Your task to perform on an android device: What's the latest tech news? Image 0: 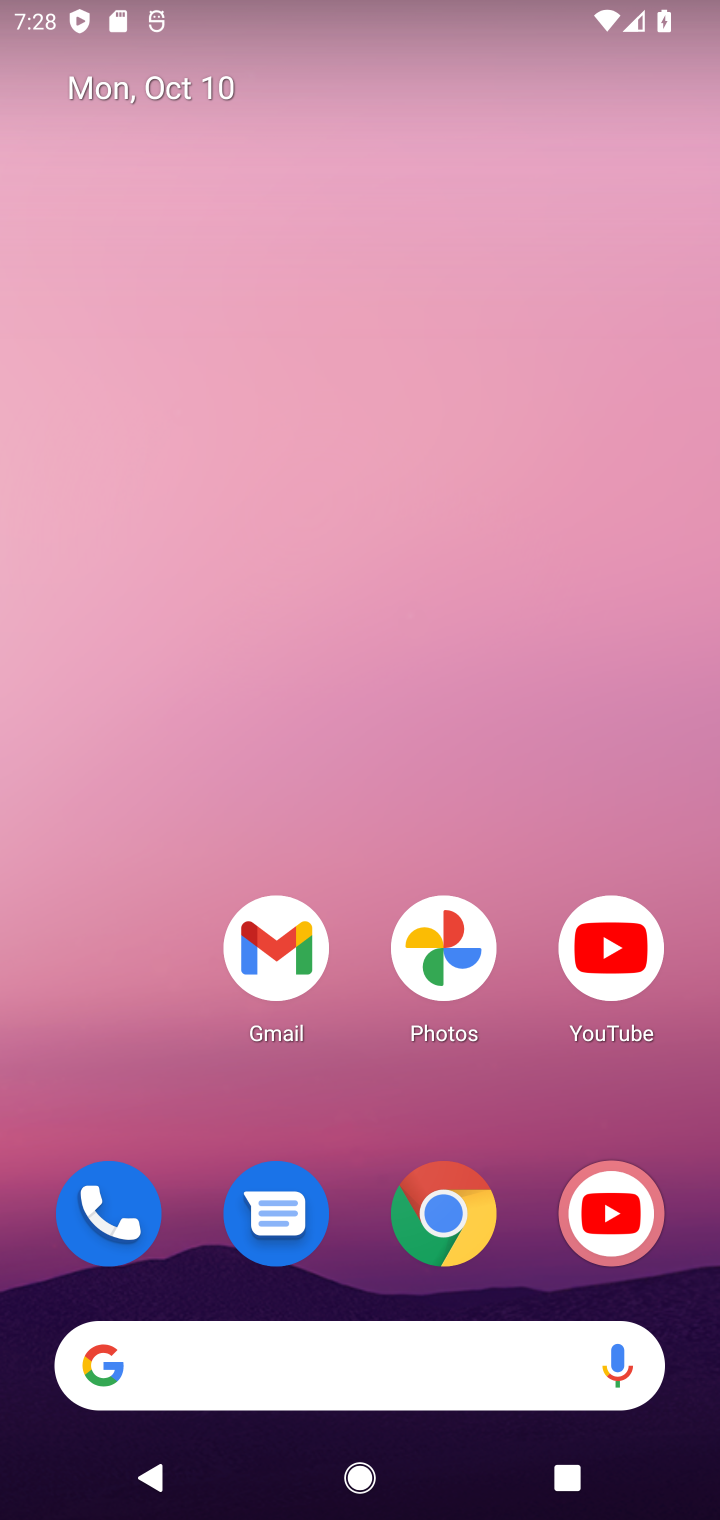
Step 0: click (422, 1383)
Your task to perform on an android device: What's the latest tech news? Image 1: 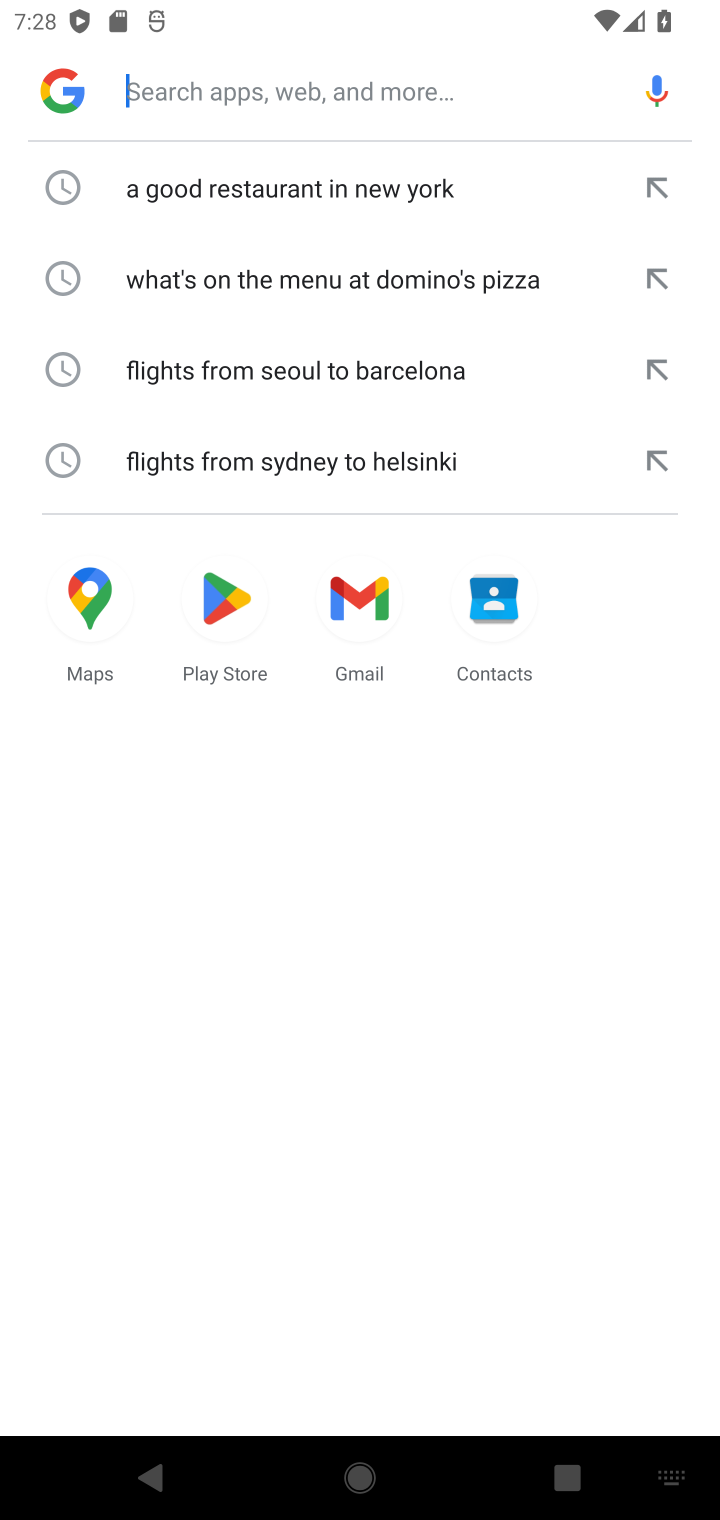
Step 1: click (294, 72)
Your task to perform on an android device: What's the latest tech news? Image 2: 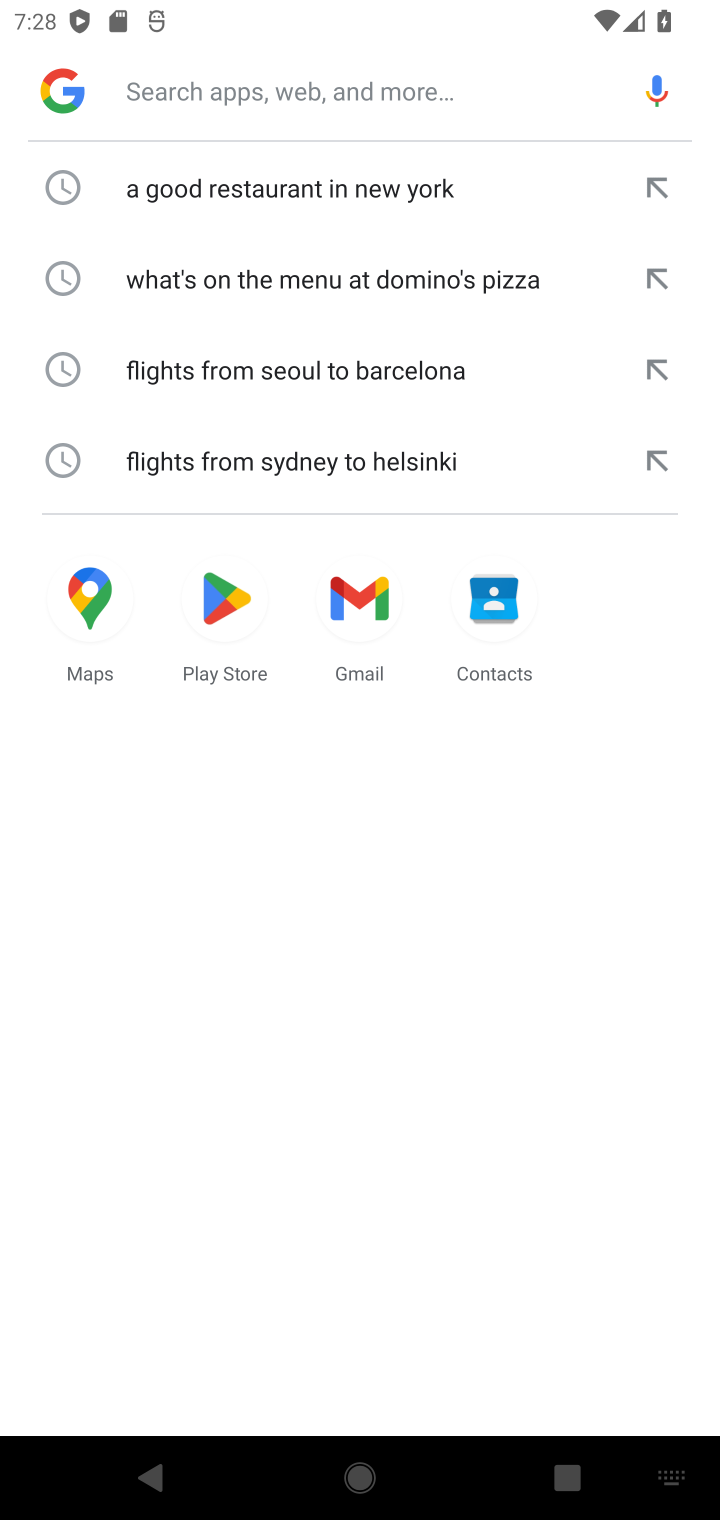
Step 2: type "What's the latest tech news?"
Your task to perform on an android device: What's the latest tech news? Image 3: 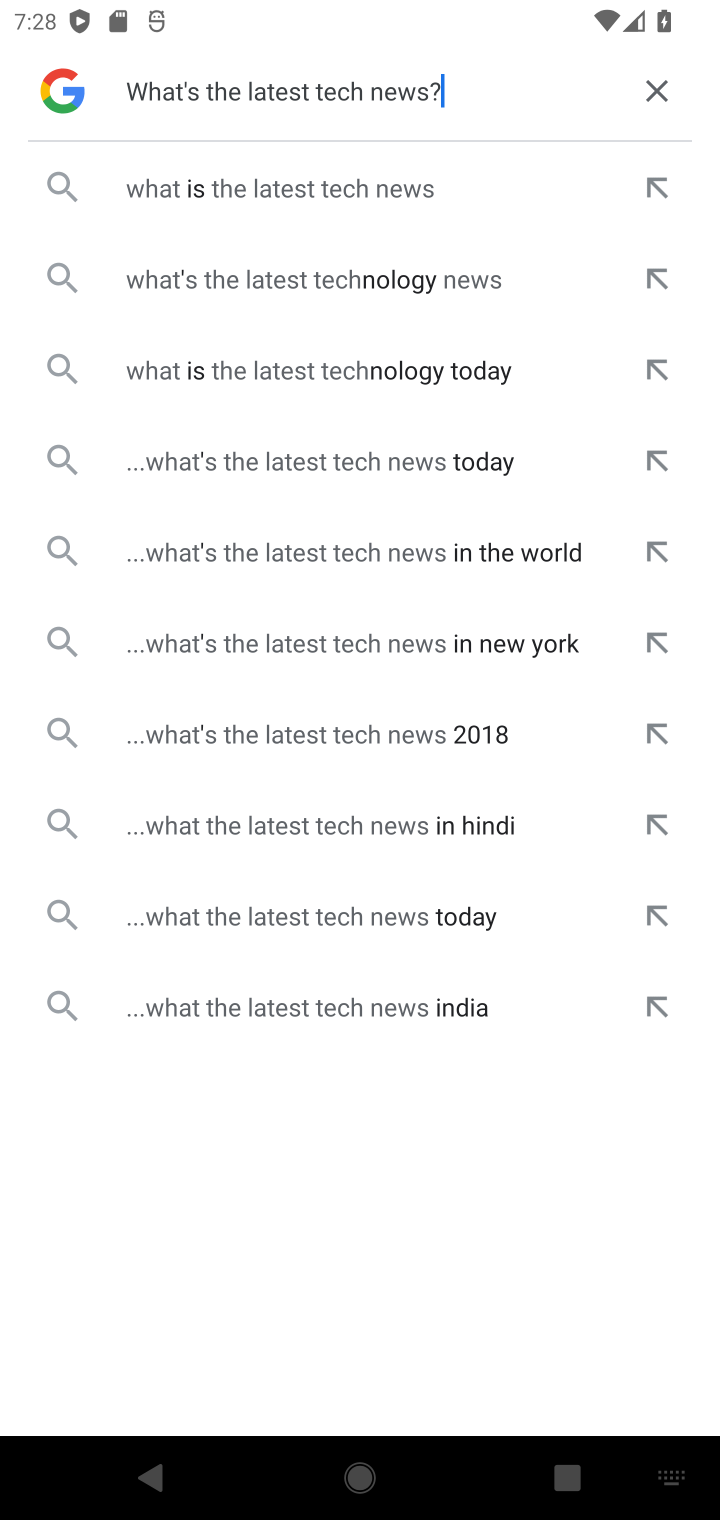
Step 3: click (347, 188)
Your task to perform on an android device: What's the latest tech news? Image 4: 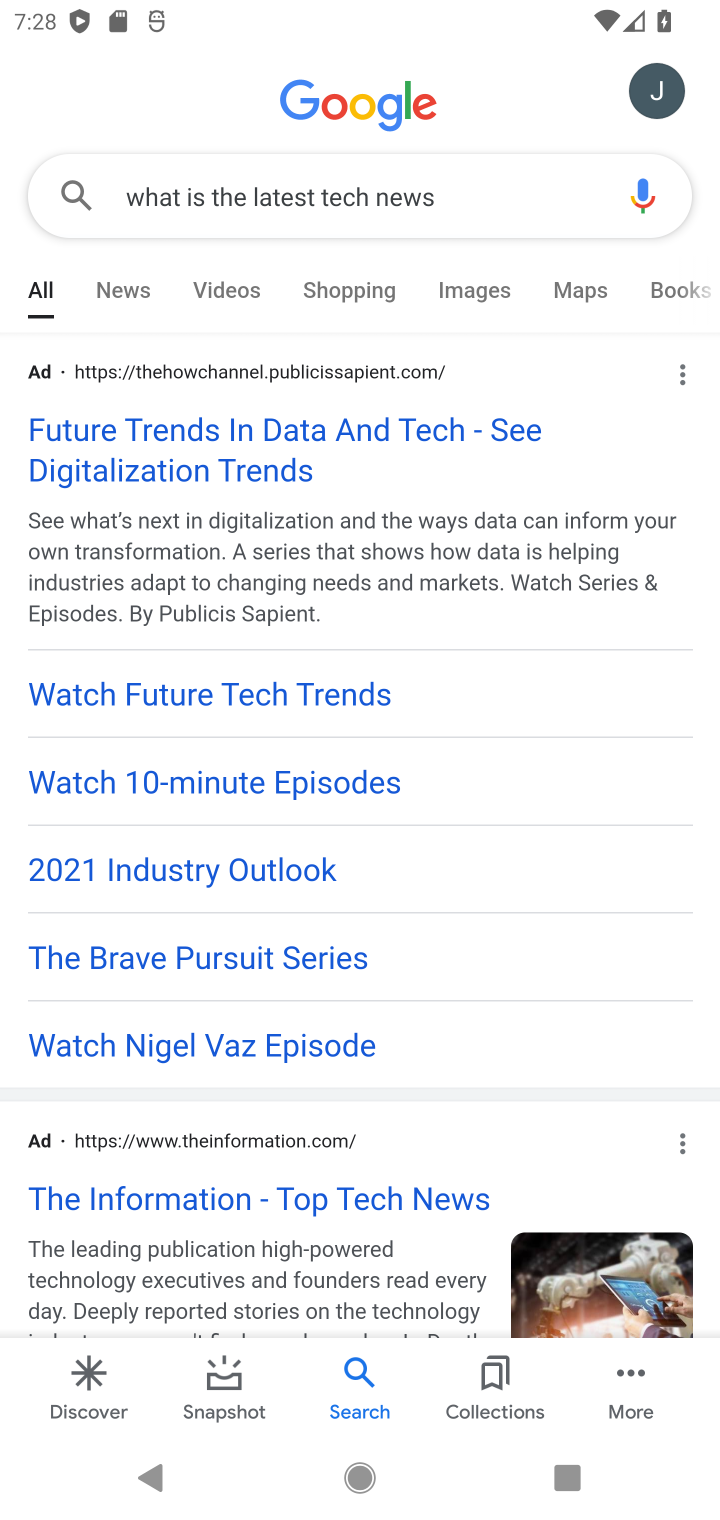
Step 4: drag from (304, 1232) to (523, 315)
Your task to perform on an android device: What's the latest tech news? Image 5: 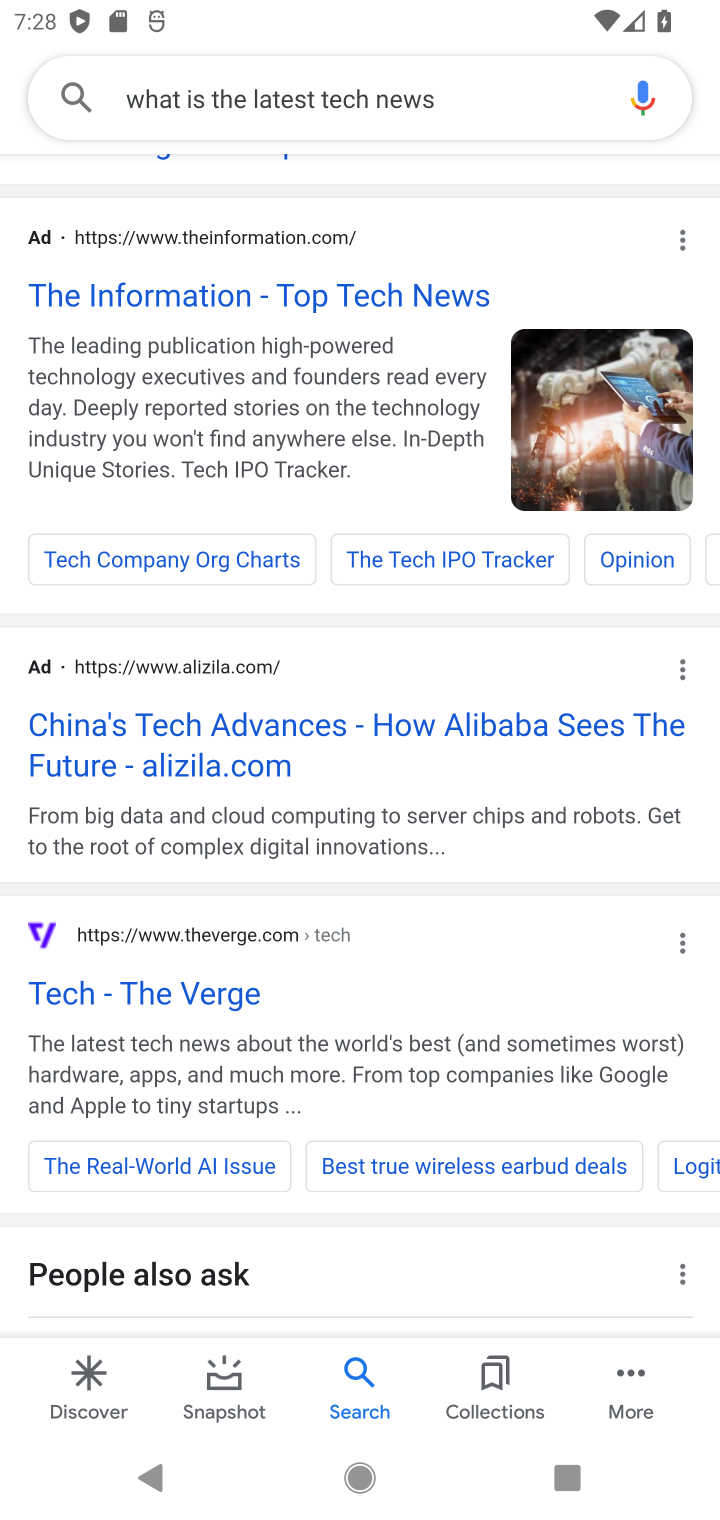
Step 5: drag from (381, 1088) to (598, 92)
Your task to perform on an android device: What's the latest tech news? Image 6: 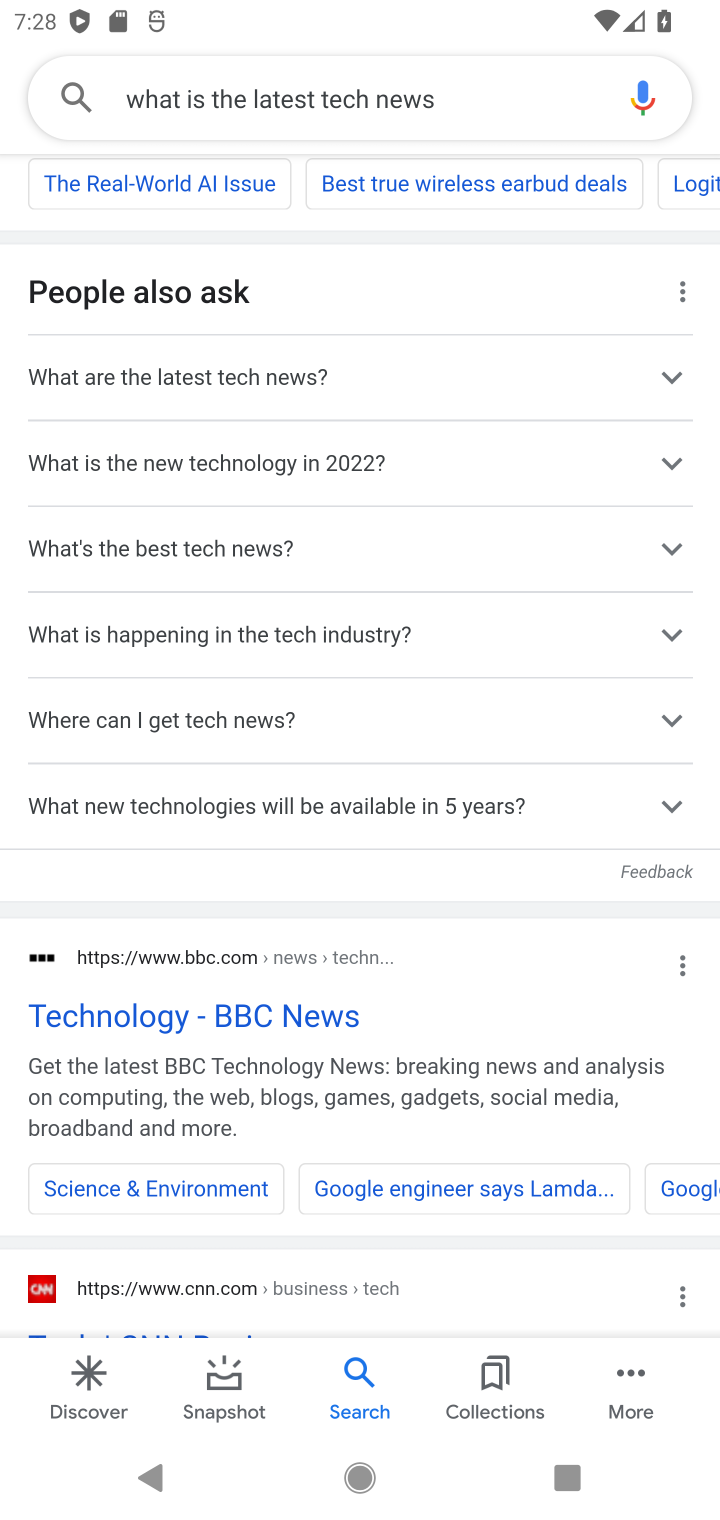
Step 6: drag from (500, 430) to (306, 1493)
Your task to perform on an android device: What's the latest tech news? Image 7: 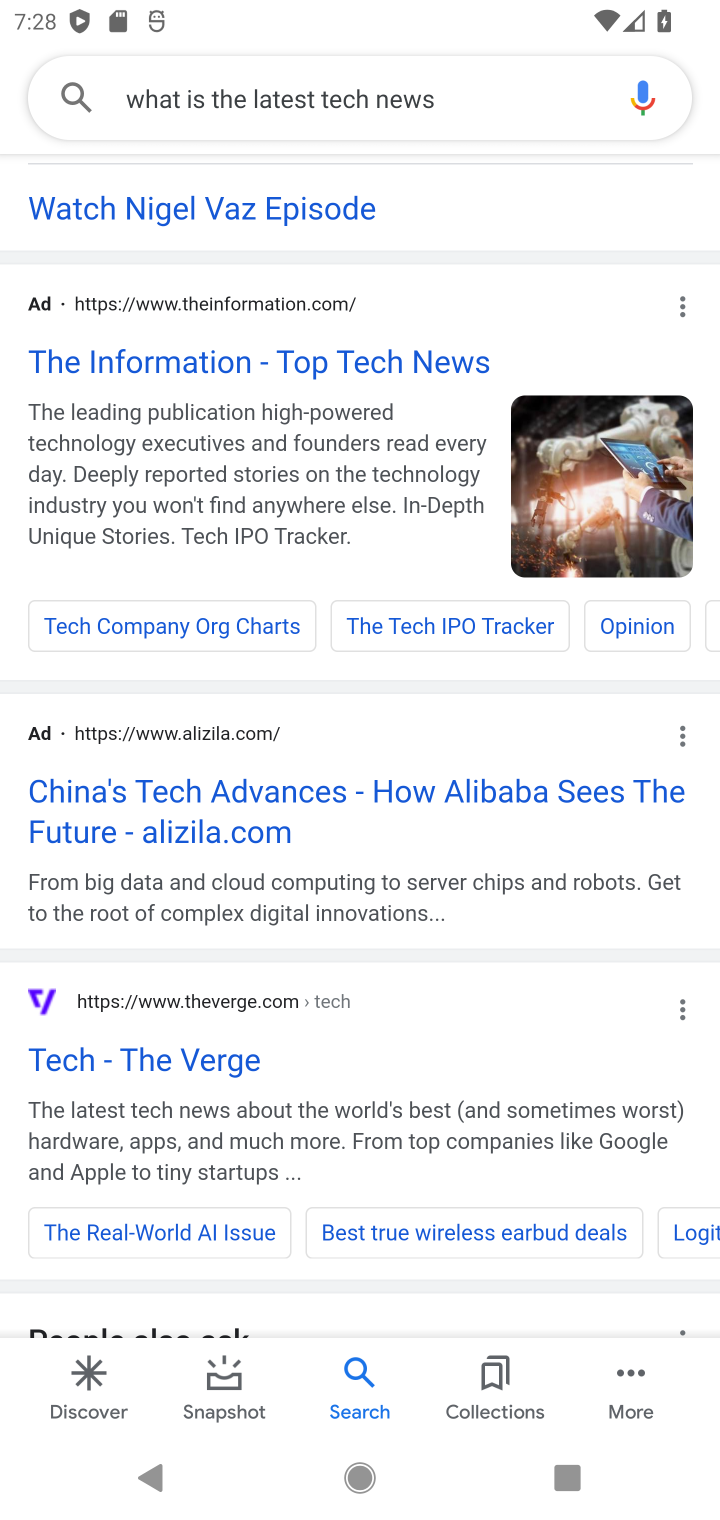
Step 7: drag from (408, 516) to (219, 1515)
Your task to perform on an android device: What's the latest tech news? Image 8: 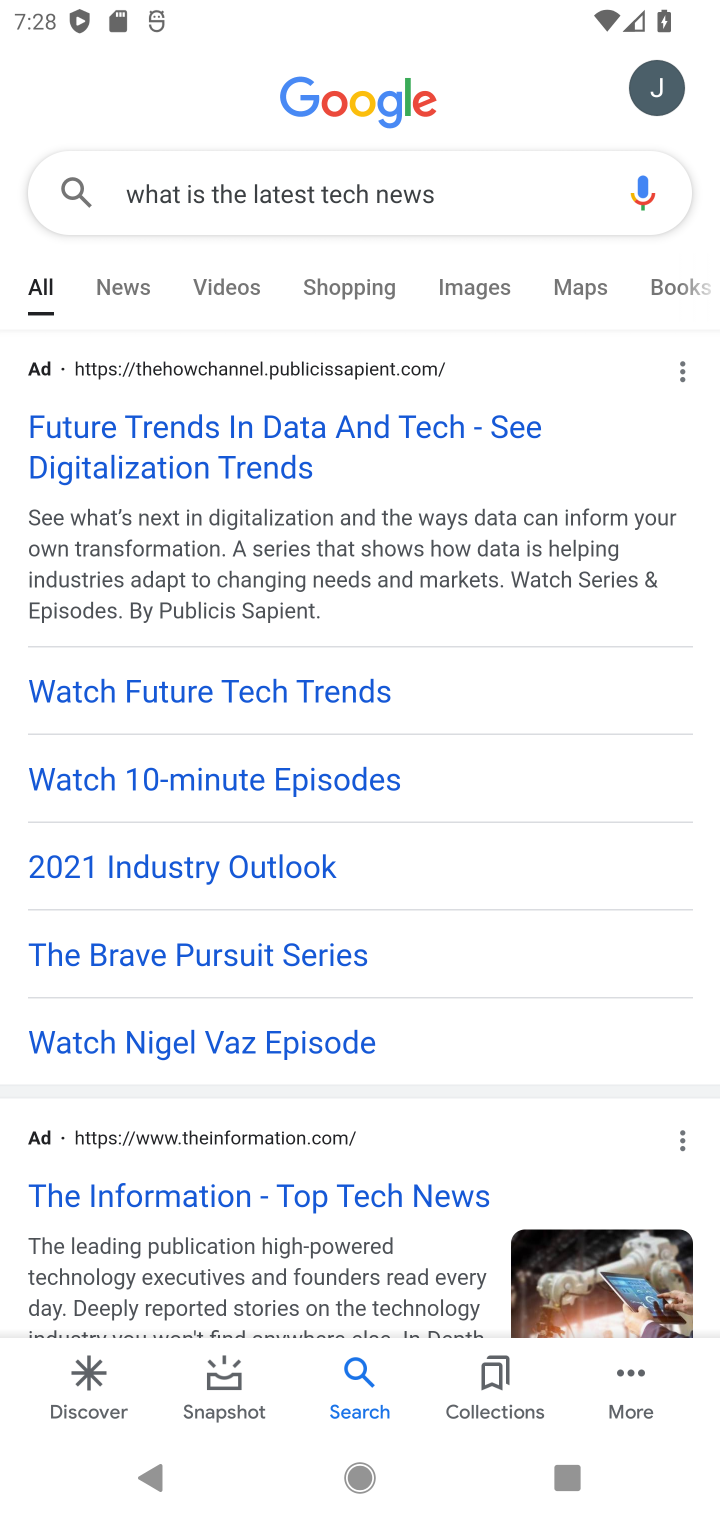
Step 8: drag from (245, 1231) to (612, 440)
Your task to perform on an android device: What's the latest tech news? Image 9: 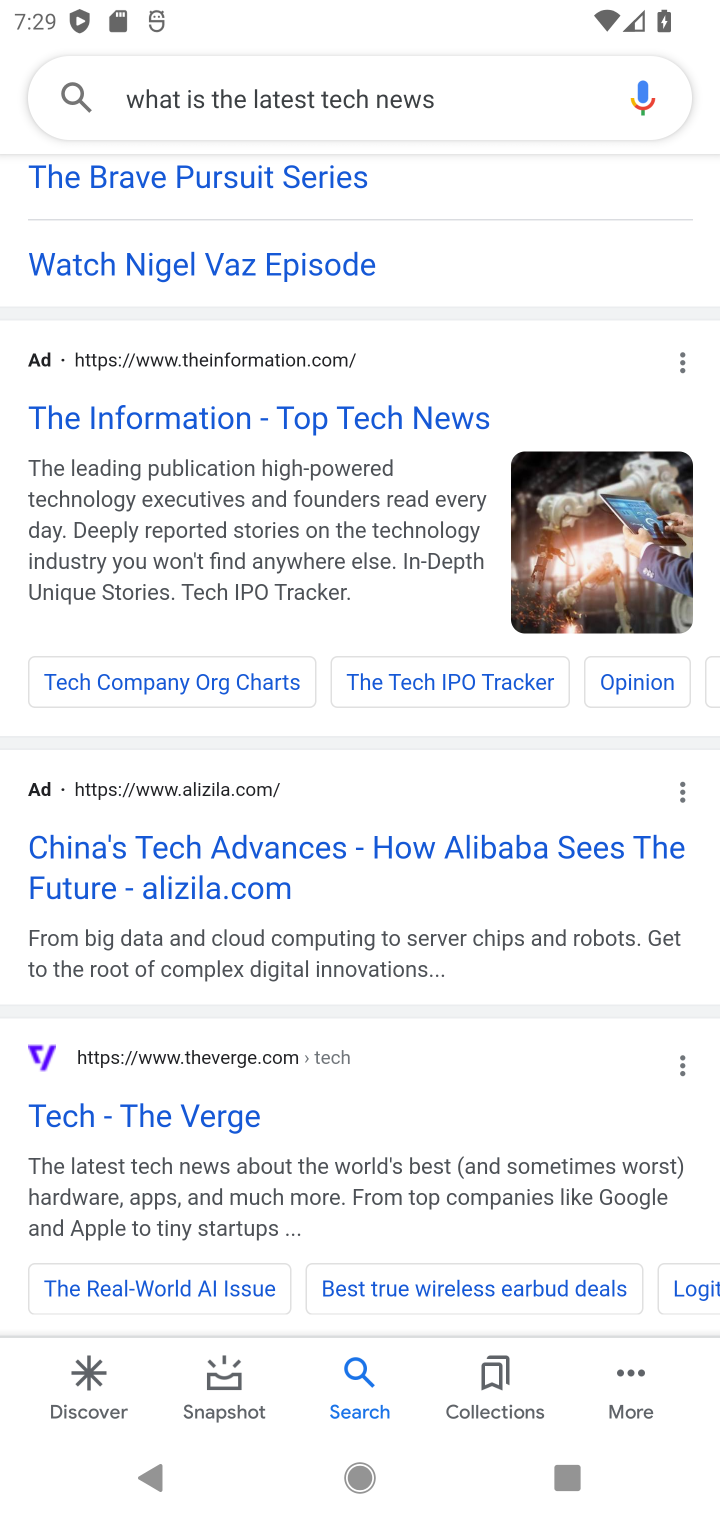
Step 9: drag from (326, 1136) to (490, 165)
Your task to perform on an android device: What's the latest tech news? Image 10: 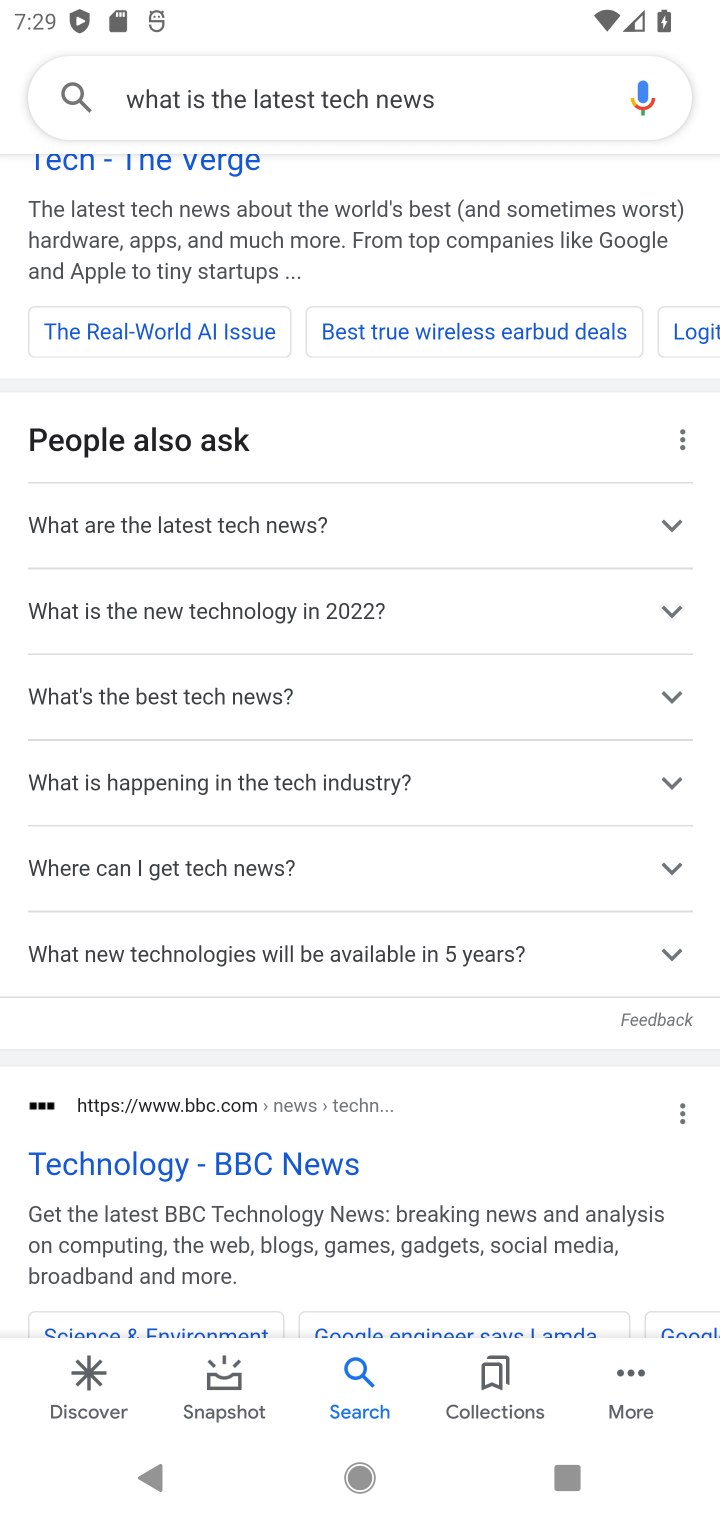
Step 10: click (303, 495)
Your task to perform on an android device: What's the latest tech news? Image 11: 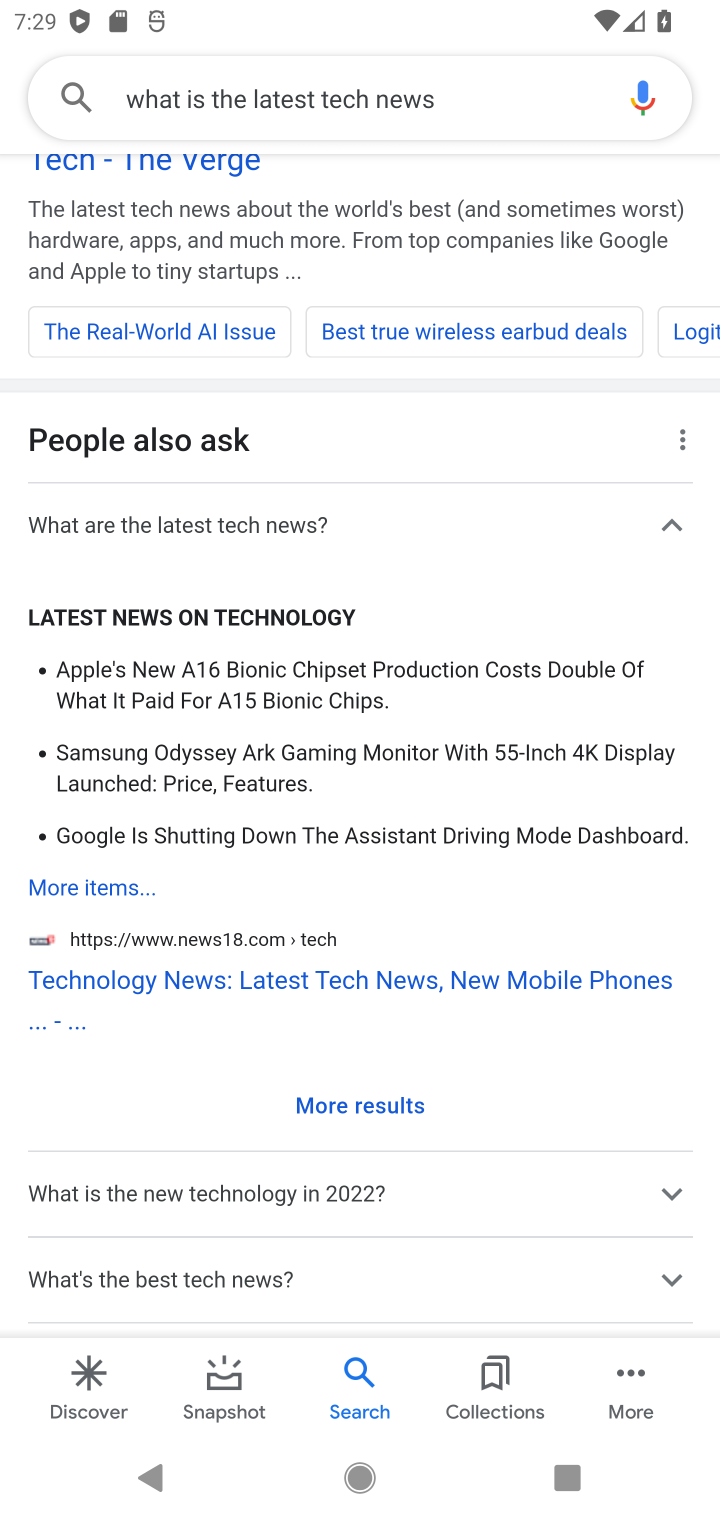
Step 11: task complete